Your task to perform on an android device: Go to sound settings Image 0: 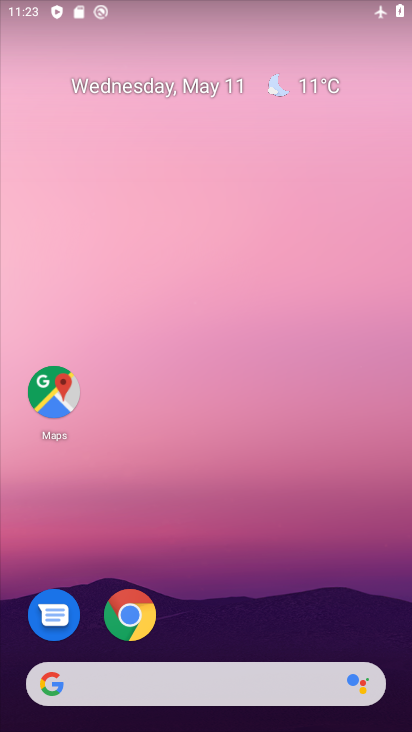
Step 0: drag from (245, 558) to (297, 86)
Your task to perform on an android device: Go to sound settings Image 1: 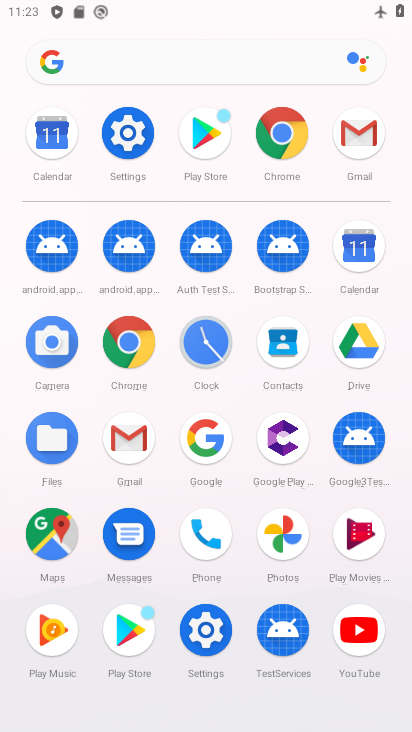
Step 1: click (138, 140)
Your task to perform on an android device: Go to sound settings Image 2: 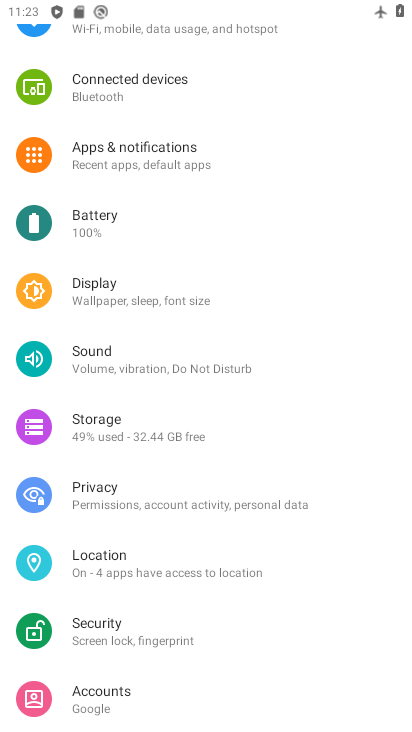
Step 2: click (149, 371)
Your task to perform on an android device: Go to sound settings Image 3: 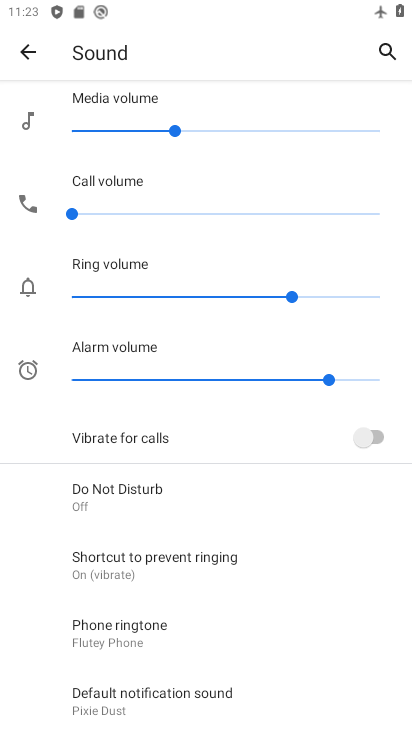
Step 3: task complete